Your task to perform on an android device: toggle notifications settings in the gmail app Image 0: 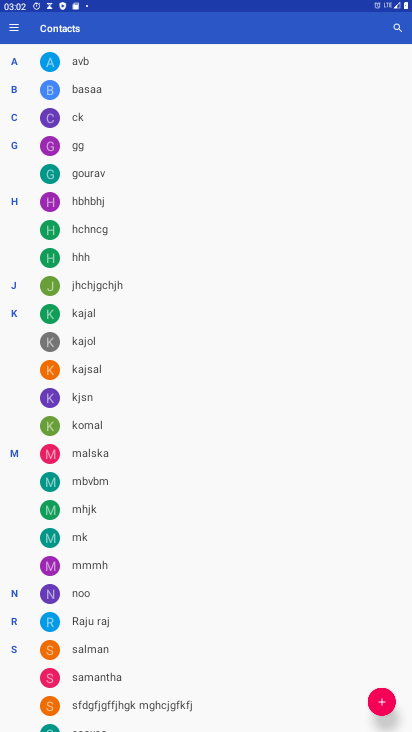
Step 0: press home button
Your task to perform on an android device: toggle notifications settings in the gmail app Image 1: 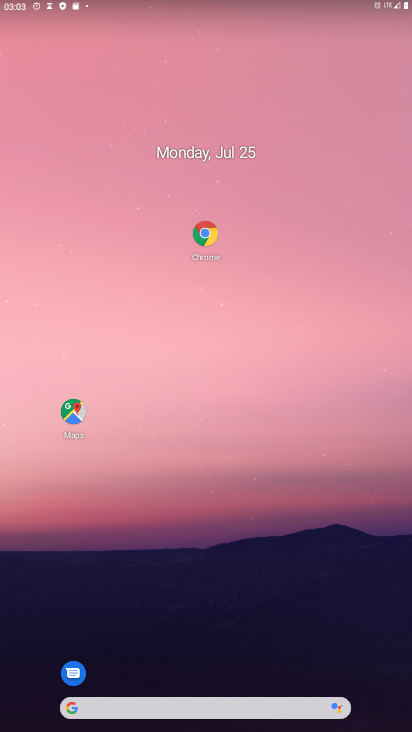
Step 1: drag from (267, 698) to (359, 41)
Your task to perform on an android device: toggle notifications settings in the gmail app Image 2: 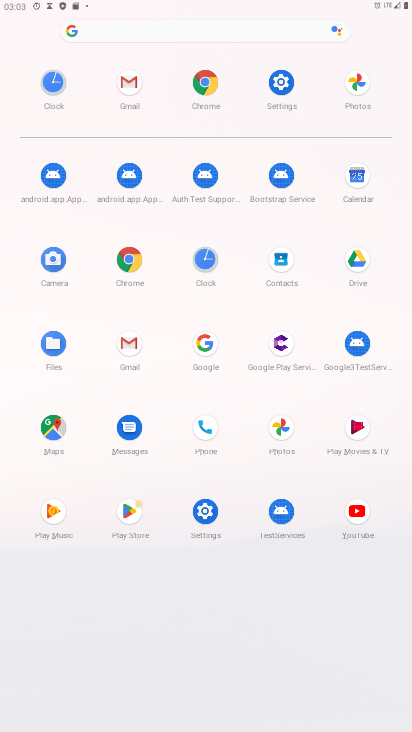
Step 2: click (127, 343)
Your task to perform on an android device: toggle notifications settings in the gmail app Image 3: 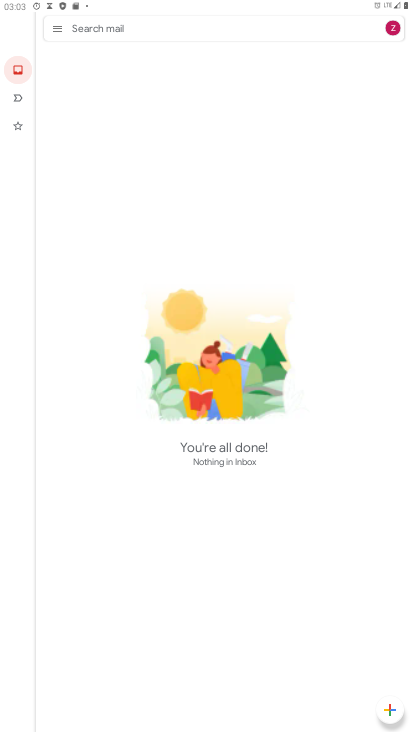
Step 3: click (53, 27)
Your task to perform on an android device: toggle notifications settings in the gmail app Image 4: 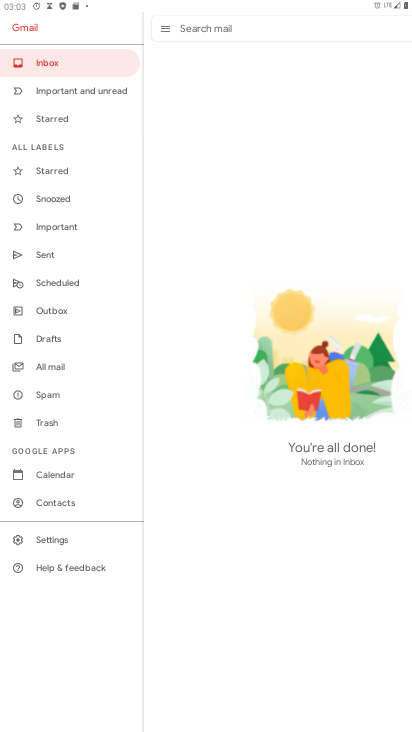
Step 4: click (31, 543)
Your task to perform on an android device: toggle notifications settings in the gmail app Image 5: 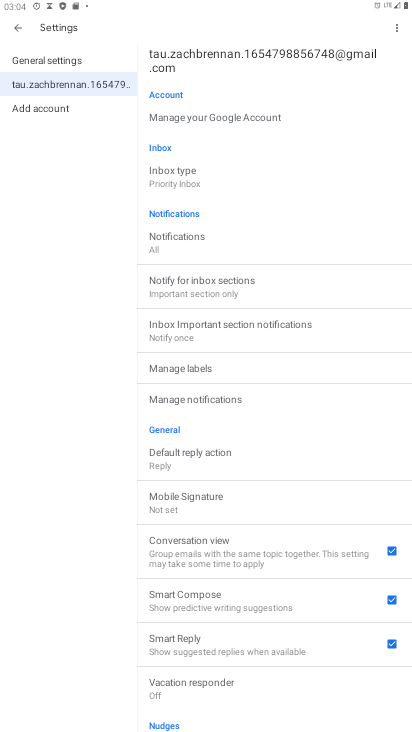
Step 5: click (194, 399)
Your task to perform on an android device: toggle notifications settings in the gmail app Image 6: 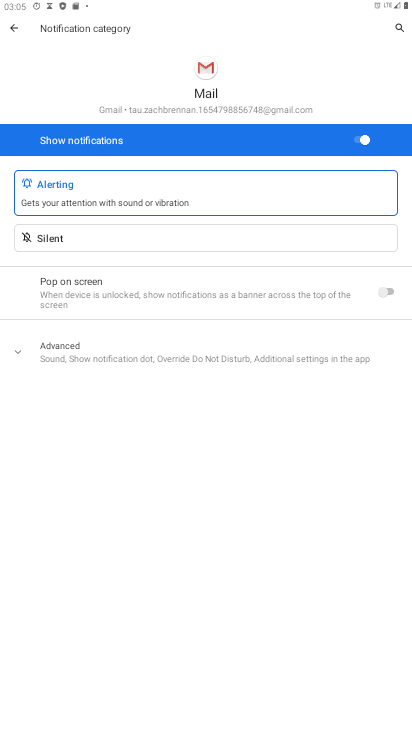
Step 6: click (356, 138)
Your task to perform on an android device: toggle notifications settings in the gmail app Image 7: 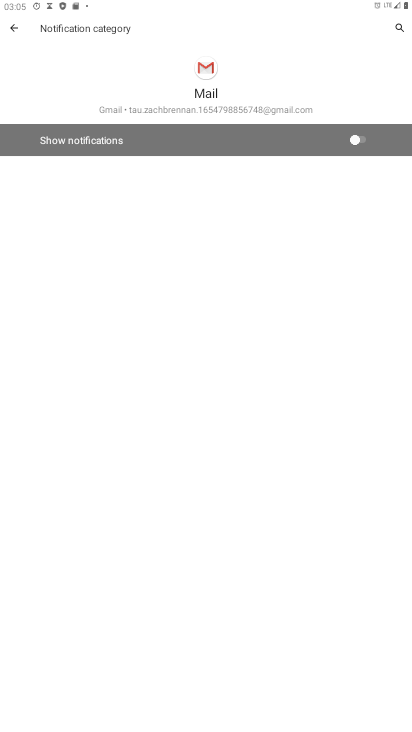
Step 7: task complete